Your task to perform on an android device: show emergency info Image 0: 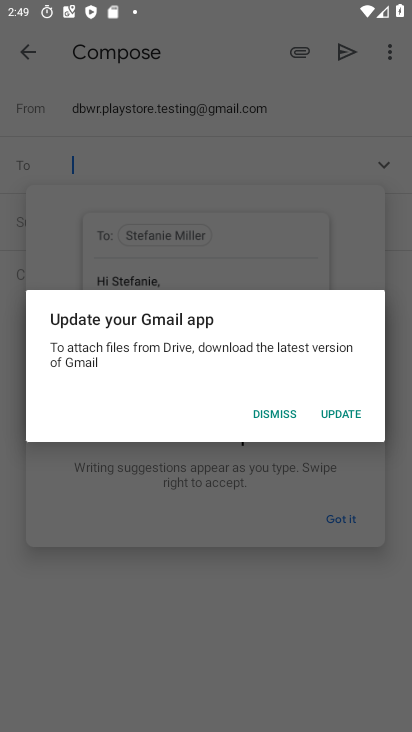
Step 0: press home button
Your task to perform on an android device: show emergency info Image 1: 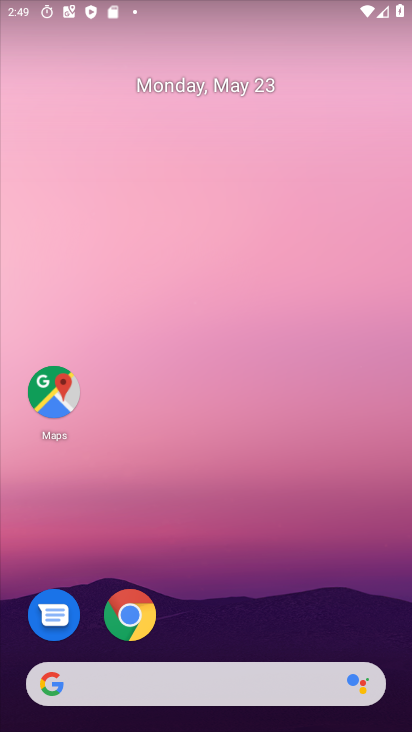
Step 1: drag from (231, 641) to (227, 3)
Your task to perform on an android device: show emergency info Image 2: 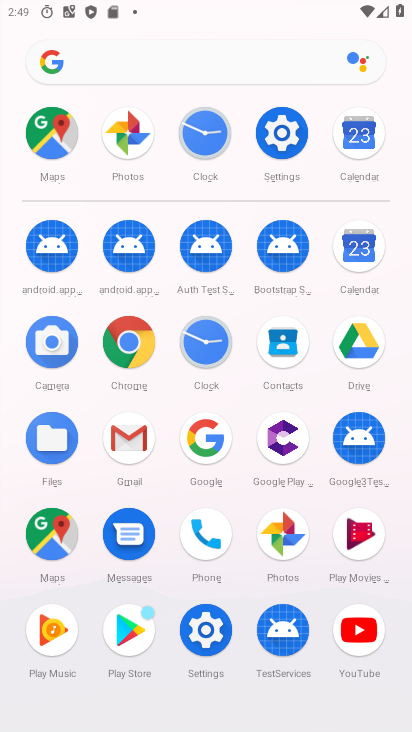
Step 2: click (279, 128)
Your task to perform on an android device: show emergency info Image 3: 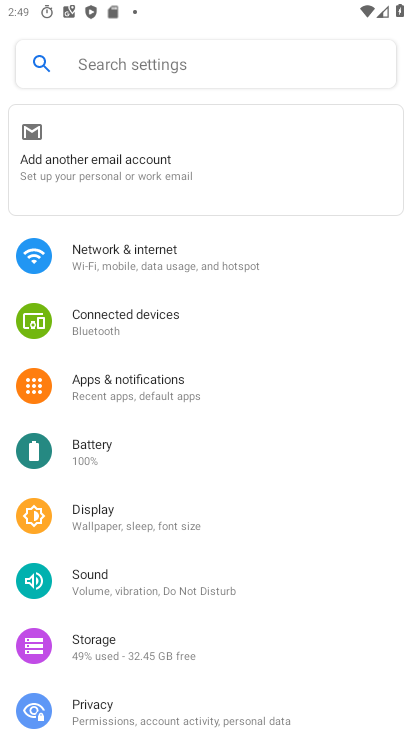
Step 3: drag from (348, 233) to (330, 100)
Your task to perform on an android device: show emergency info Image 4: 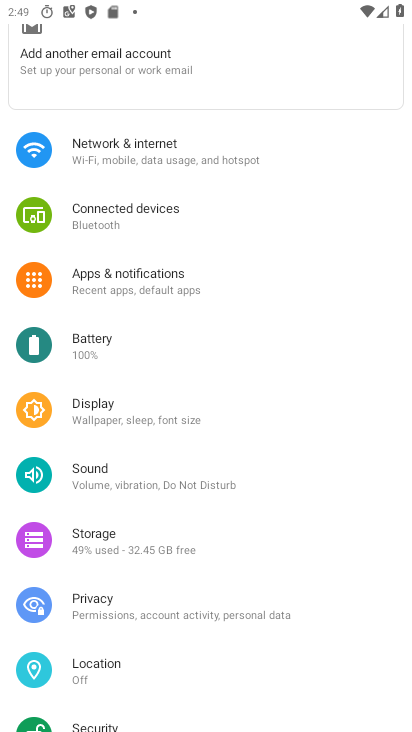
Step 4: drag from (282, 464) to (275, 118)
Your task to perform on an android device: show emergency info Image 5: 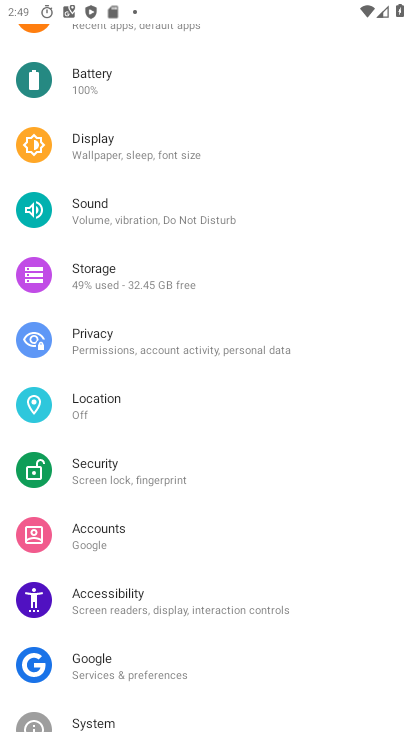
Step 5: drag from (335, 624) to (299, 108)
Your task to perform on an android device: show emergency info Image 6: 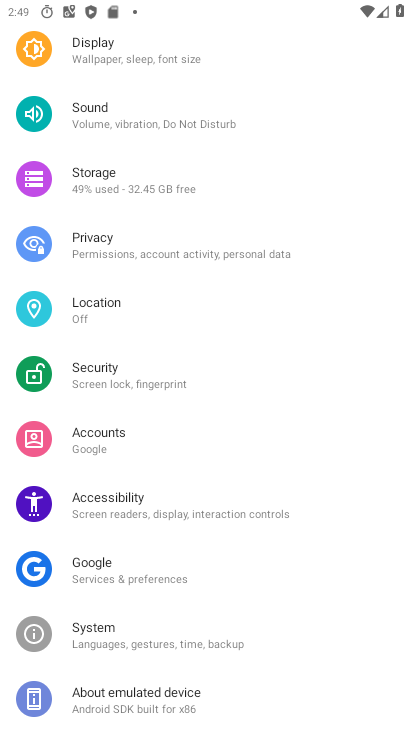
Step 6: click (151, 711)
Your task to perform on an android device: show emergency info Image 7: 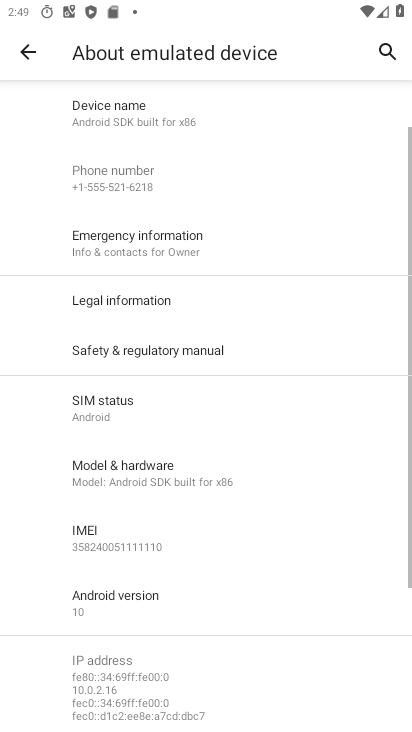
Step 7: click (124, 246)
Your task to perform on an android device: show emergency info Image 8: 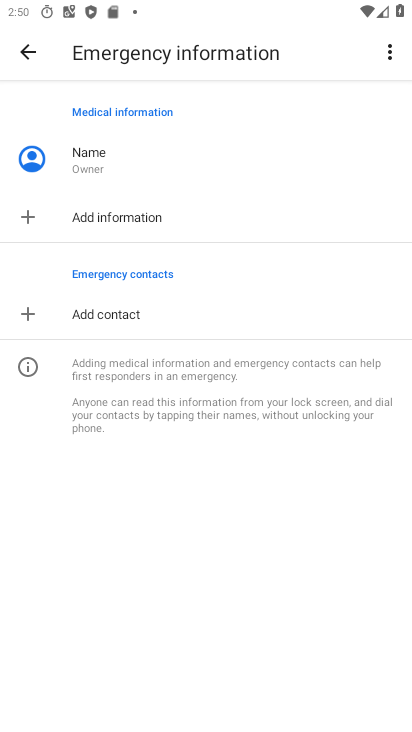
Step 8: task complete